Your task to perform on an android device: Open sound settings Image 0: 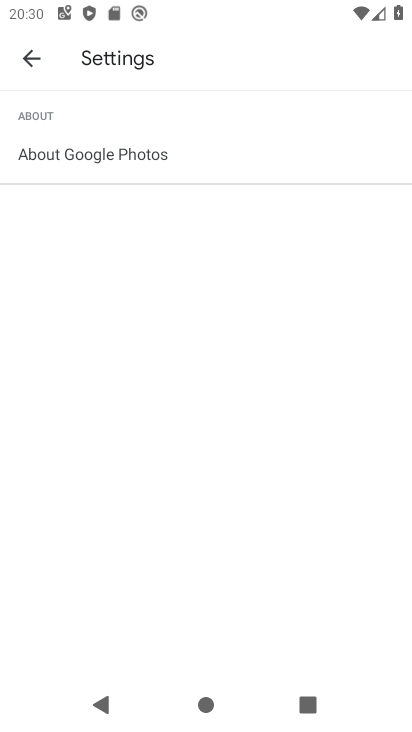
Step 0: press home button
Your task to perform on an android device: Open sound settings Image 1: 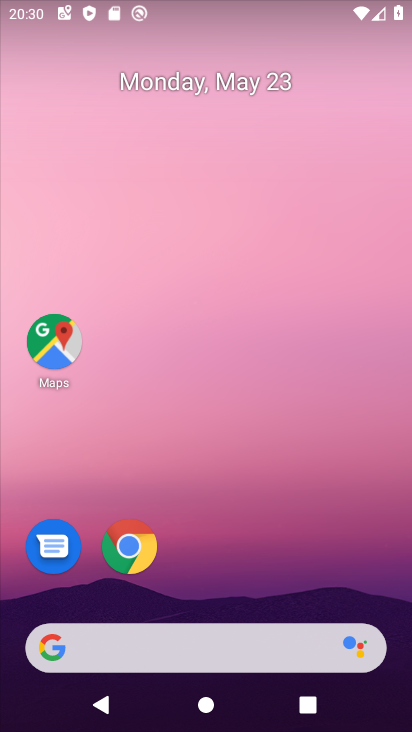
Step 1: drag from (384, 591) to (375, 227)
Your task to perform on an android device: Open sound settings Image 2: 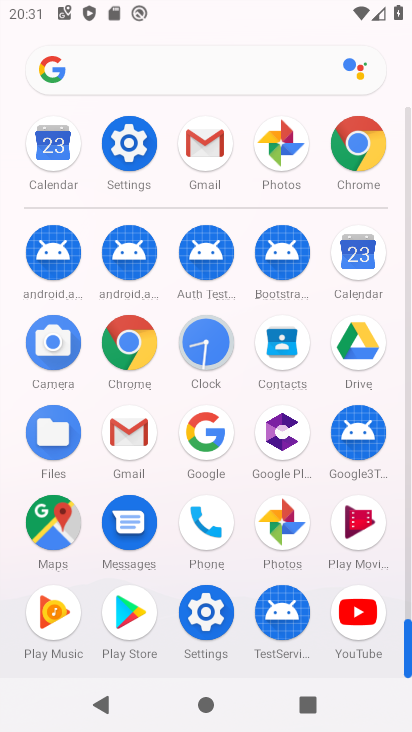
Step 2: click (218, 629)
Your task to perform on an android device: Open sound settings Image 3: 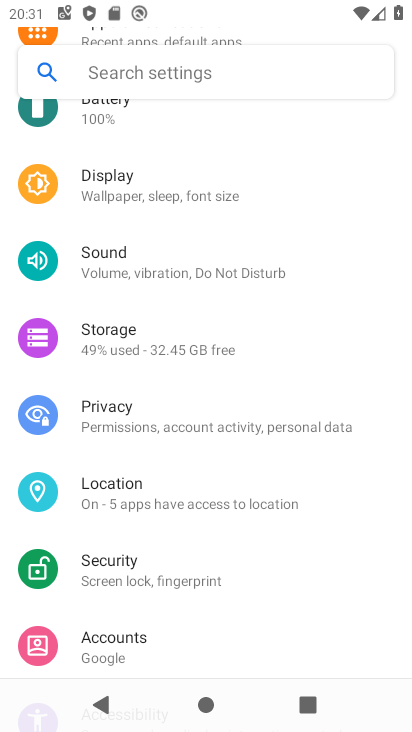
Step 3: drag from (346, 607) to (355, 542)
Your task to perform on an android device: Open sound settings Image 4: 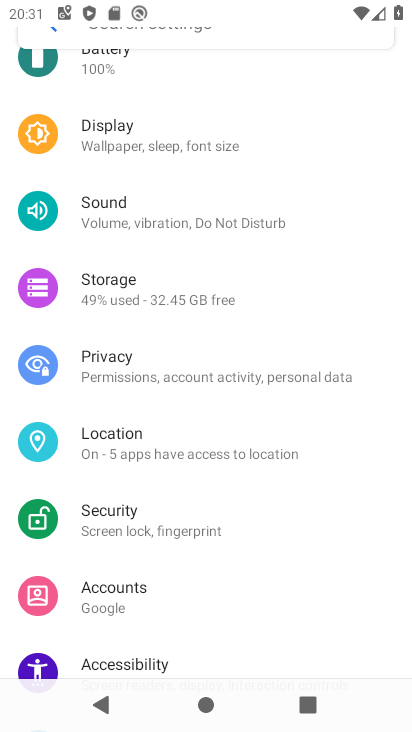
Step 4: drag from (347, 637) to (364, 542)
Your task to perform on an android device: Open sound settings Image 5: 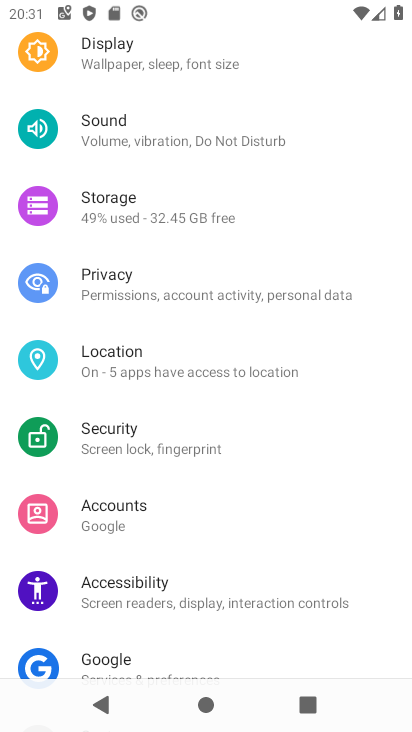
Step 5: drag from (366, 636) to (371, 563)
Your task to perform on an android device: Open sound settings Image 6: 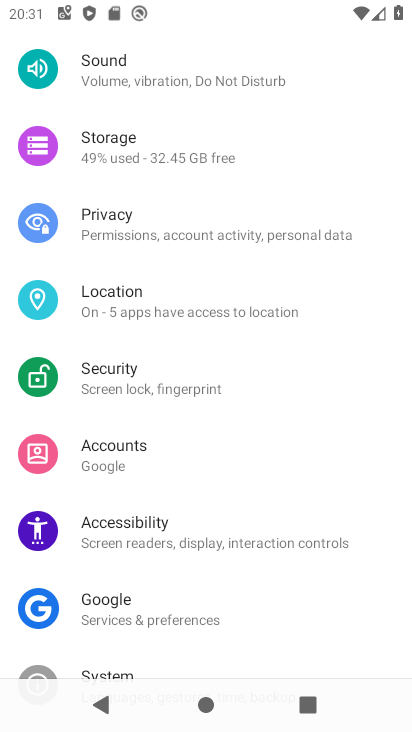
Step 6: drag from (372, 631) to (387, 552)
Your task to perform on an android device: Open sound settings Image 7: 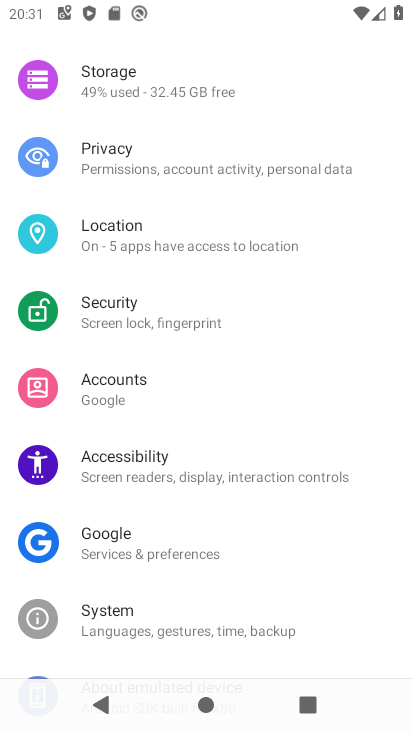
Step 7: drag from (367, 629) to (371, 529)
Your task to perform on an android device: Open sound settings Image 8: 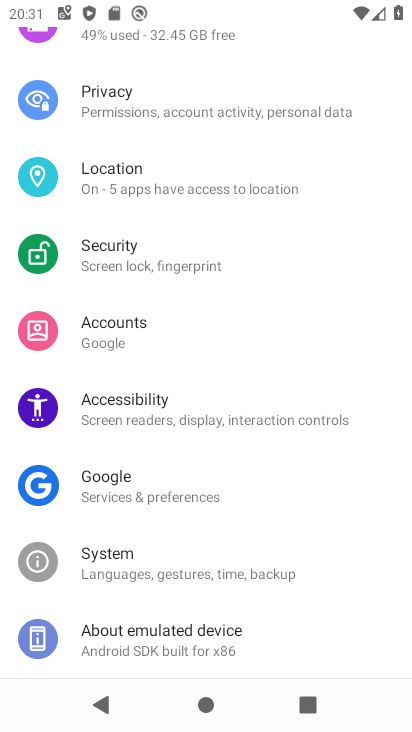
Step 8: drag from (367, 459) to (362, 528)
Your task to perform on an android device: Open sound settings Image 9: 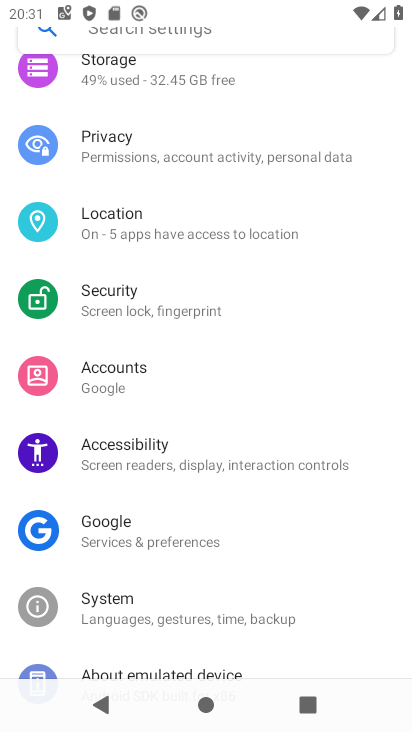
Step 9: drag from (362, 411) to (362, 482)
Your task to perform on an android device: Open sound settings Image 10: 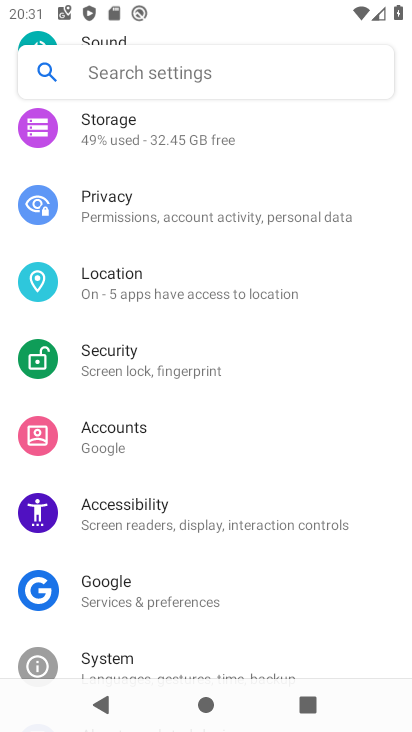
Step 10: drag from (362, 417) to (356, 497)
Your task to perform on an android device: Open sound settings Image 11: 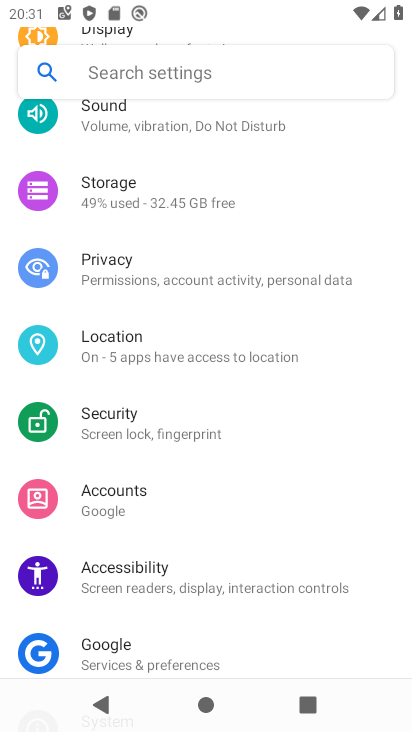
Step 11: drag from (349, 414) to (339, 496)
Your task to perform on an android device: Open sound settings Image 12: 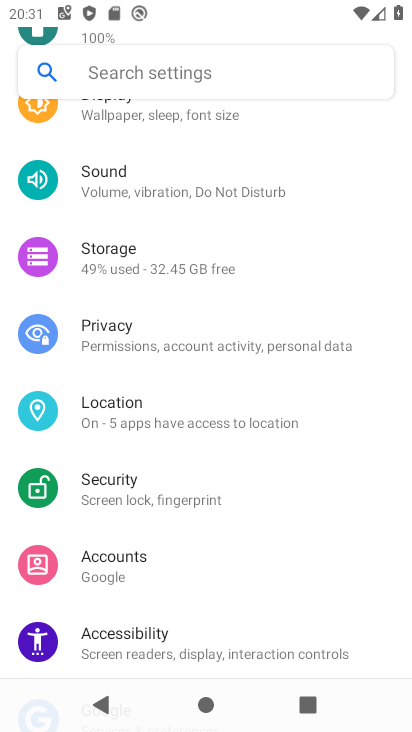
Step 12: drag from (351, 424) to (348, 512)
Your task to perform on an android device: Open sound settings Image 13: 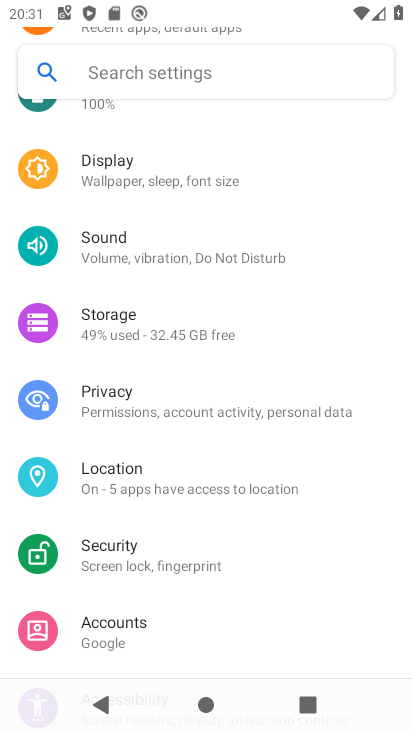
Step 13: drag from (355, 424) to (356, 503)
Your task to perform on an android device: Open sound settings Image 14: 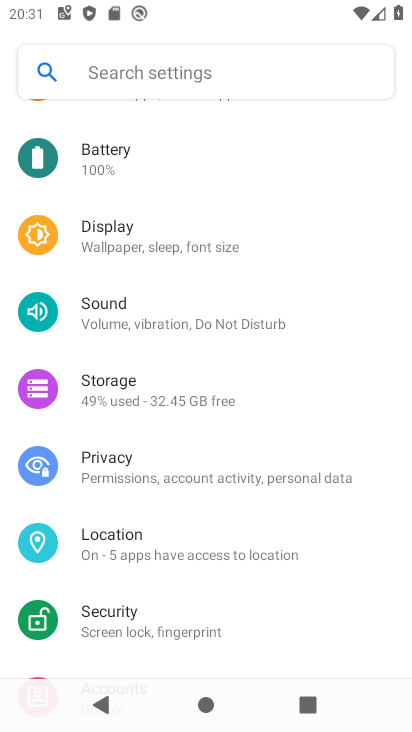
Step 14: drag from (366, 438) to (364, 521)
Your task to perform on an android device: Open sound settings Image 15: 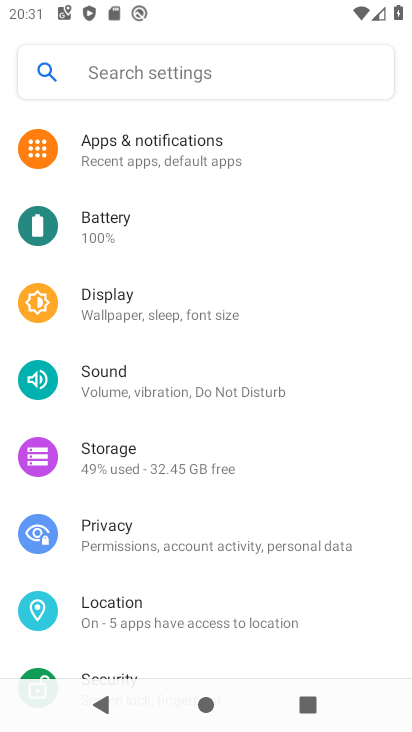
Step 15: drag from (351, 449) to (349, 533)
Your task to perform on an android device: Open sound settings Image 16: 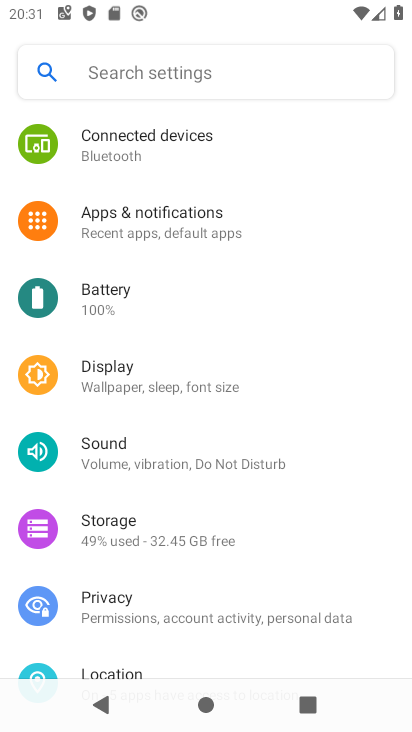
Step 16: drag from (342, 463) to (338, 617)
Your task to perform on an android device: Open sound settings Image 17: 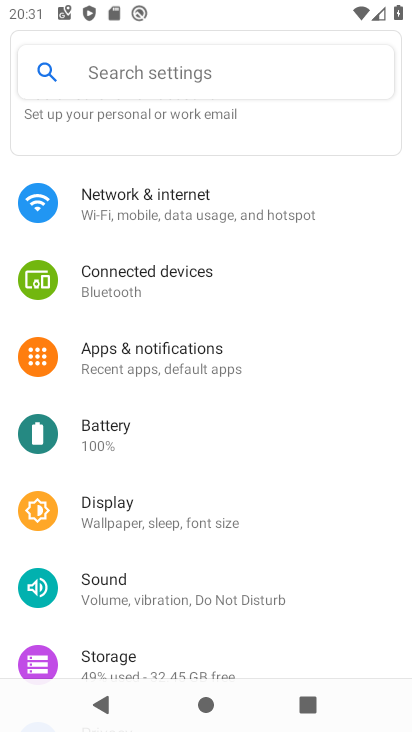
Step 17: click (268, 601)
Your task to perform on an android device: Open sound settings Image 18: 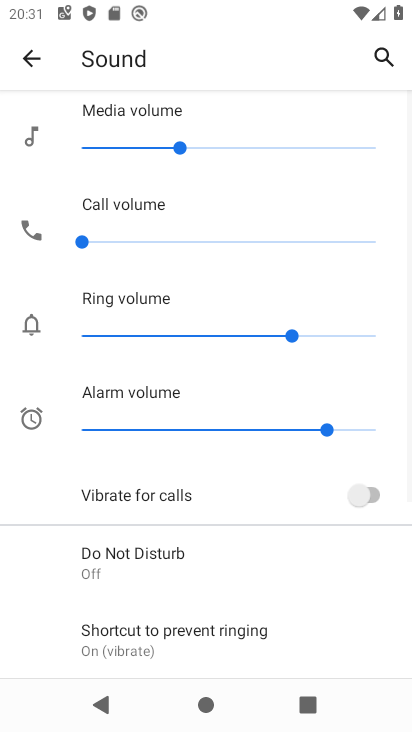
Step 18: task complete